Your task to perform on an android device: Open calendar and show me the first week of next month Image 0: 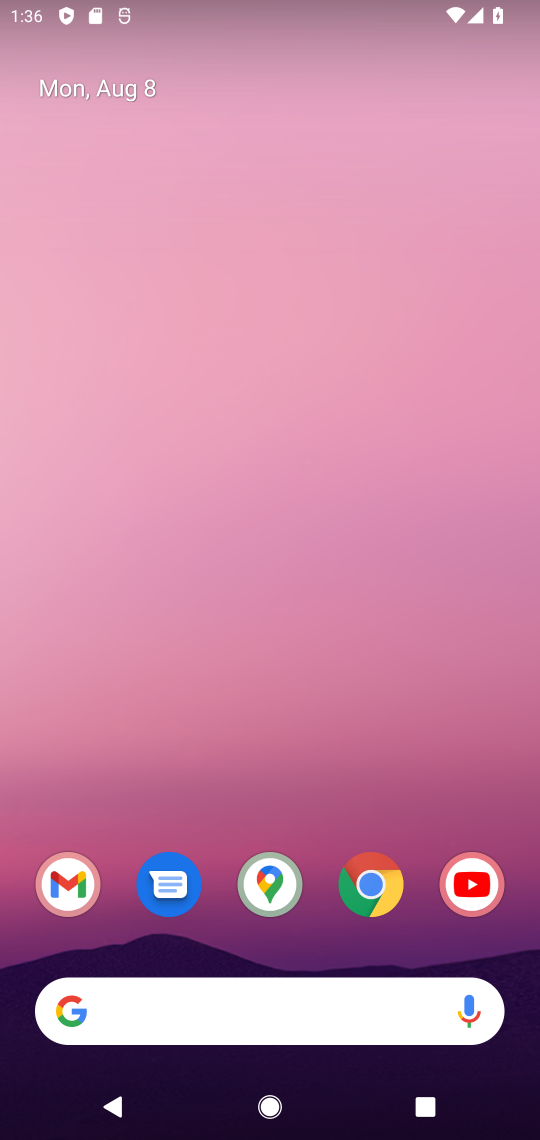
Step 0: drag from (331, 781) to (226, 1)
Your task to perform on an android device: Open calendar and show me the first week of next month Image 1: 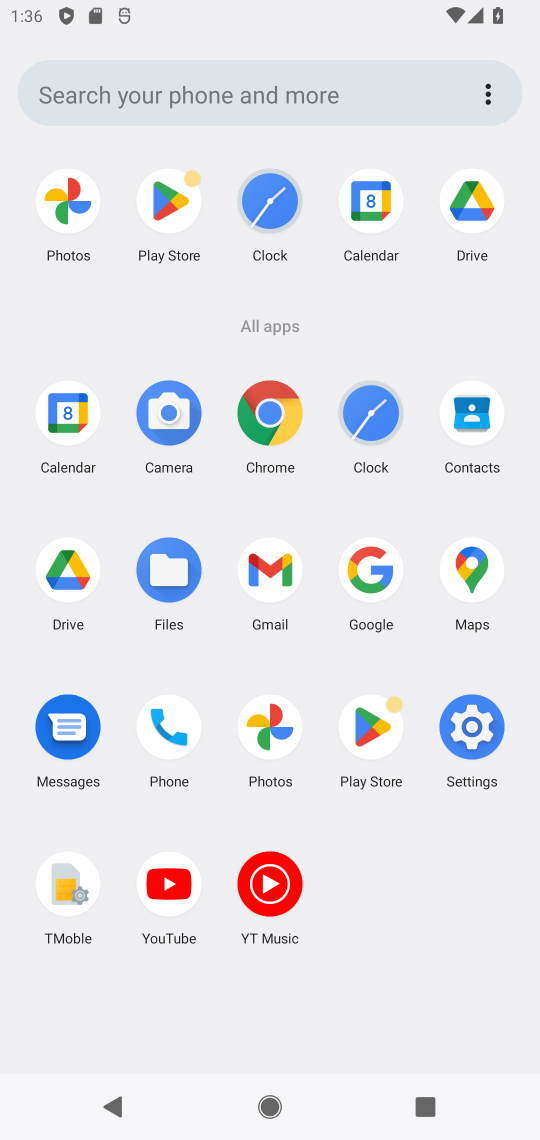
Step 1: click (362, 188)
Your task to perform on an android device: Open calendar and show me the first week of next month Image 2: 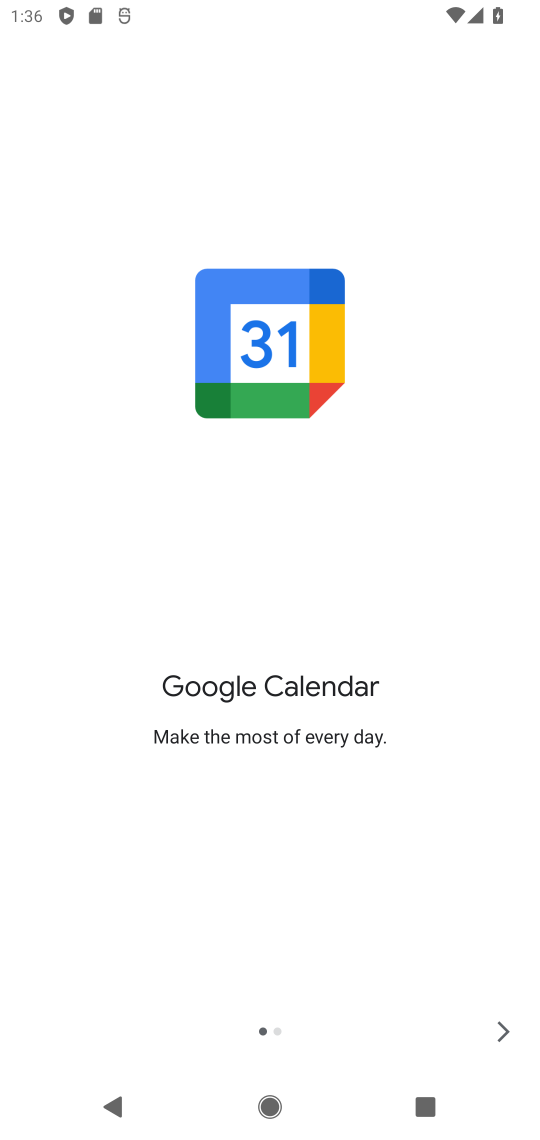
Step 2: click (503, 1021)
Your task to perform on an android device: Open calendar and show me the first week of next month Image 3: 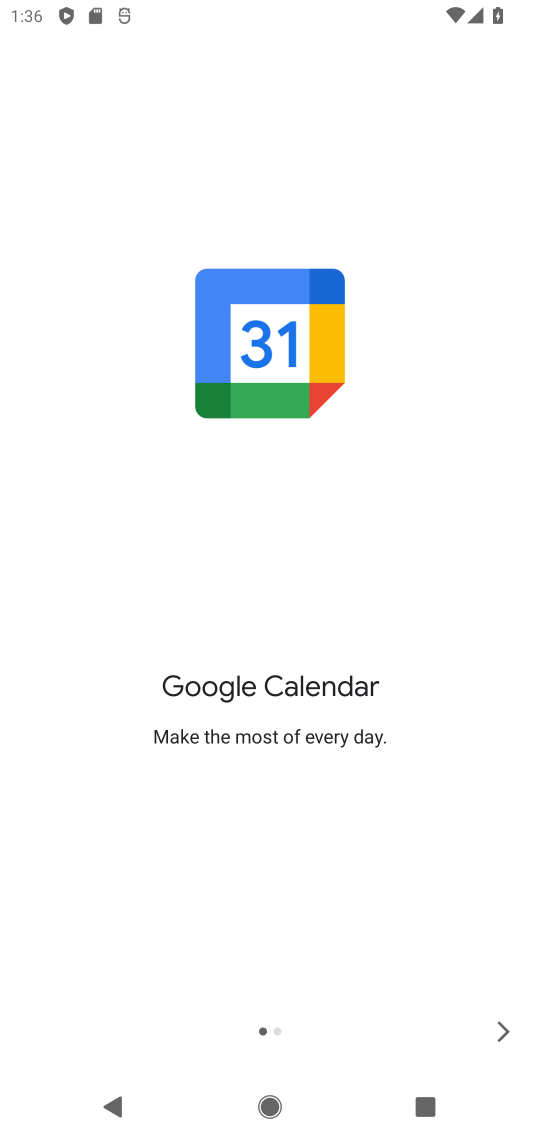
Step 3: click (503, 1021)
Your task to perform on an android device: Open calendar and show me the first week of next month Image 4: 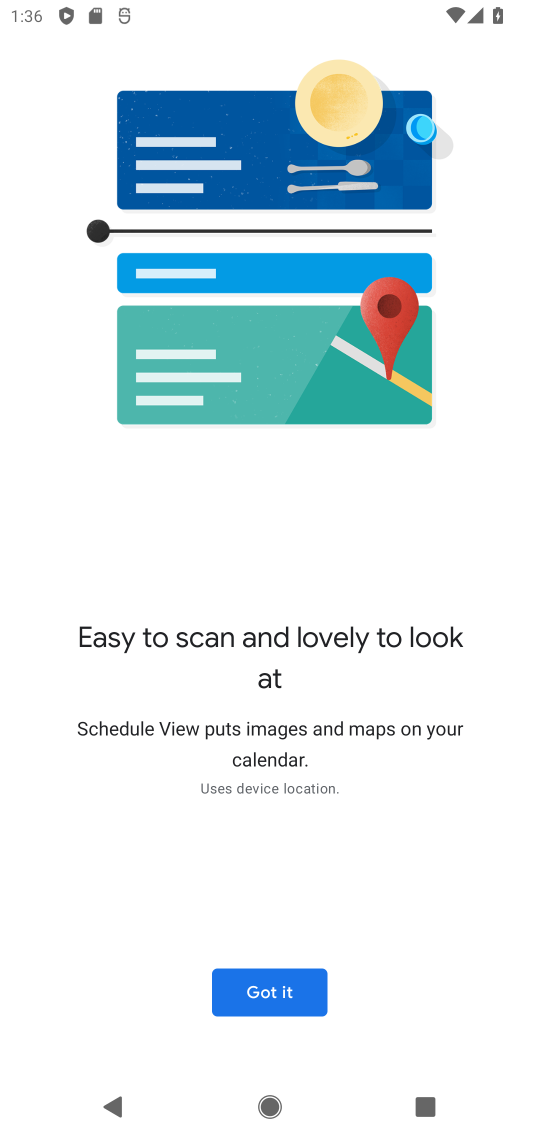
Step 4: click (309, 1003)
Your task to perform on an android device: Open calendar and show me the first week of next month Image 5: 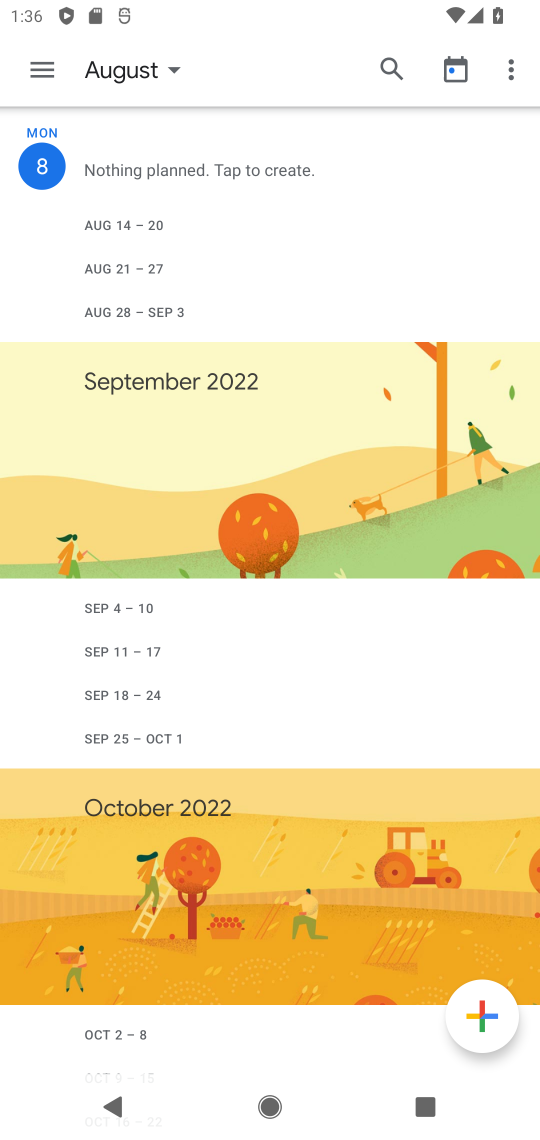
Step 5: click (208, 536)
Your task to perform on an android device: Open calendar and show me the first week of next month Image 6: 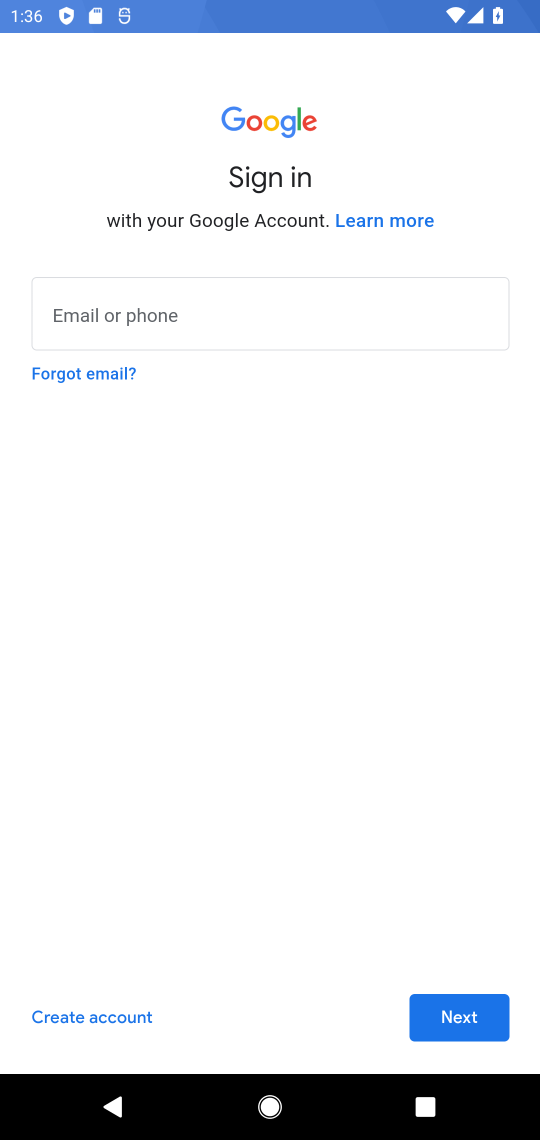
Step 6: click (441, 1026)
Your task to perform on an android device: Open calendar and show me the first week of next month Image 7: 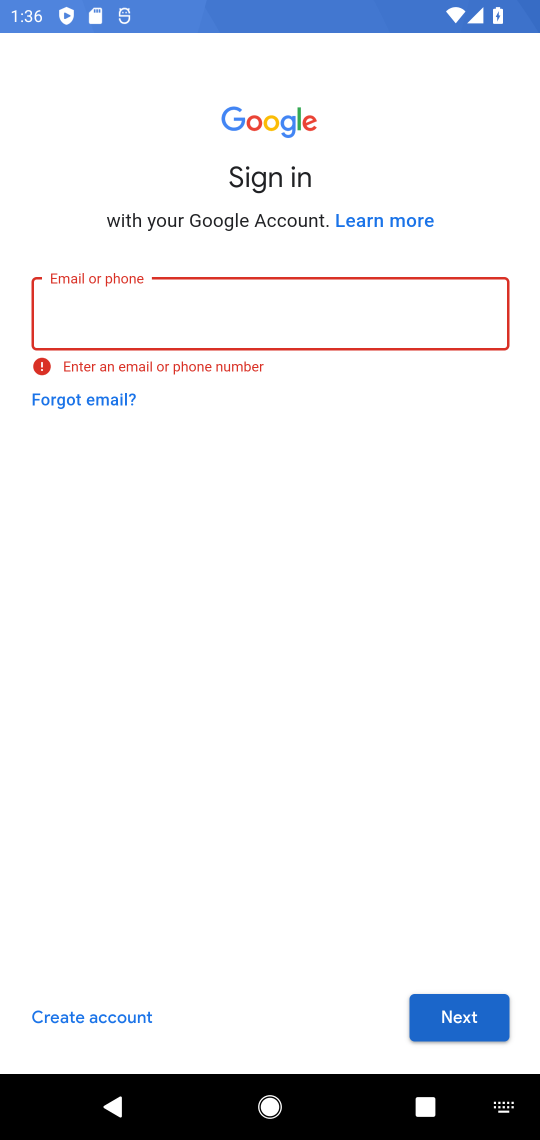
Step 7: task complete